Your task to perform on an android device: visit the assistant section in the google photos Image 0: 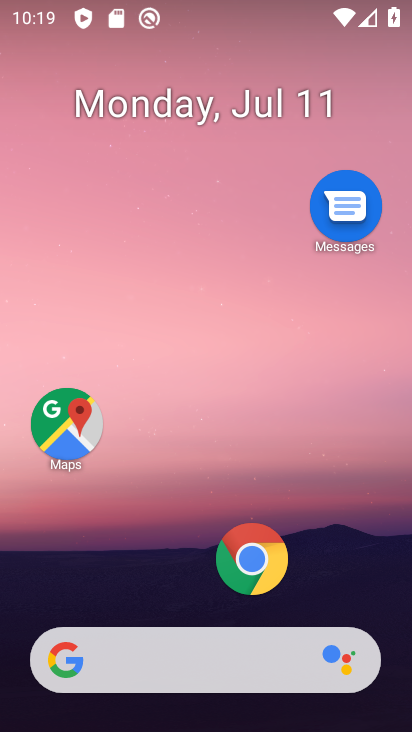
Step 0: drag from (367, 559) to (394, 88)
Your task to perform on an android device: visit the assistant section in the google photos Image 1: 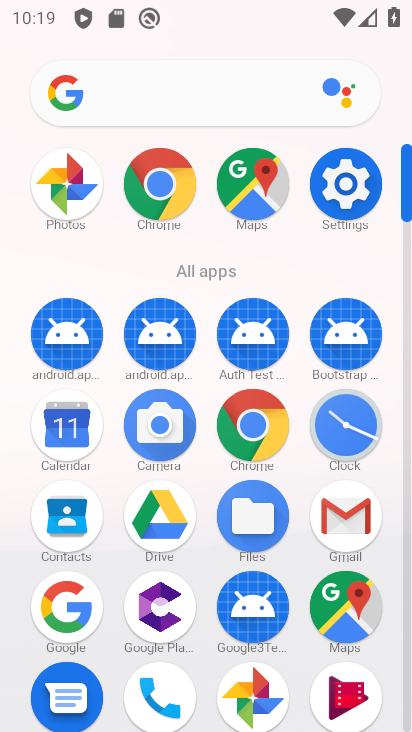
Step 1: click (246, 682)
Your task to perform on an android device: visit the assistant section in the google photos Image 2: 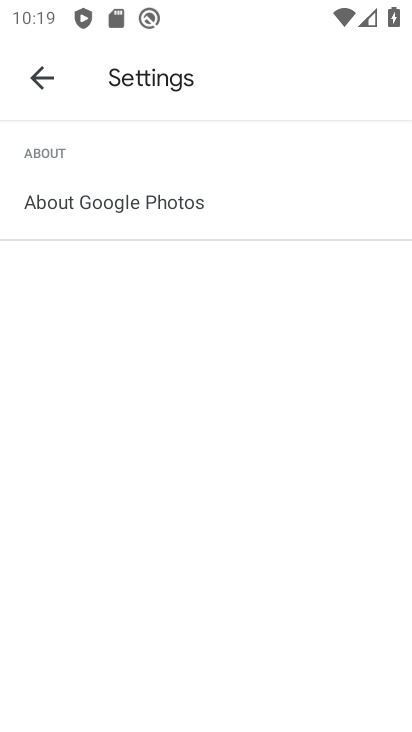
Step 2: task complete